Your task to perform on an android device: Go to Amazon Image 0: 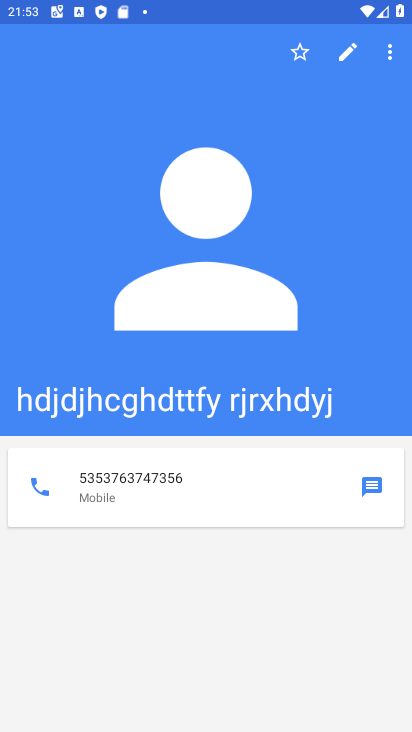
Step 0: press home button
Your task to perform on an android device: Go to Amazon Image 1: 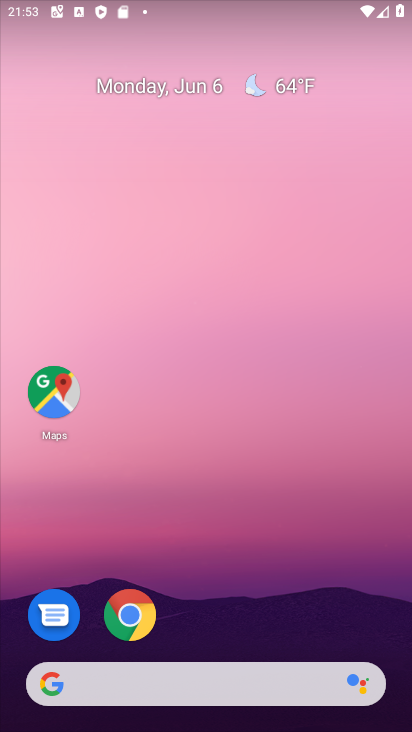
Step 1: click (137, 616)
Your task to perform on an android device: Go to Amazon Image 2: 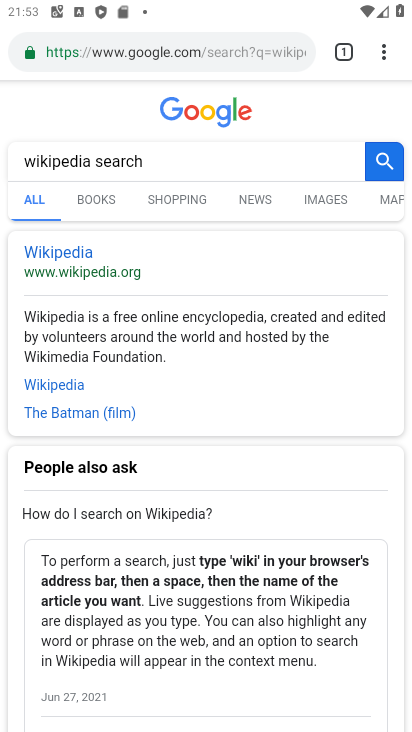
Step 2: click (308, 52)
Your task to perform on an android device: Go to Amazon Image 3: 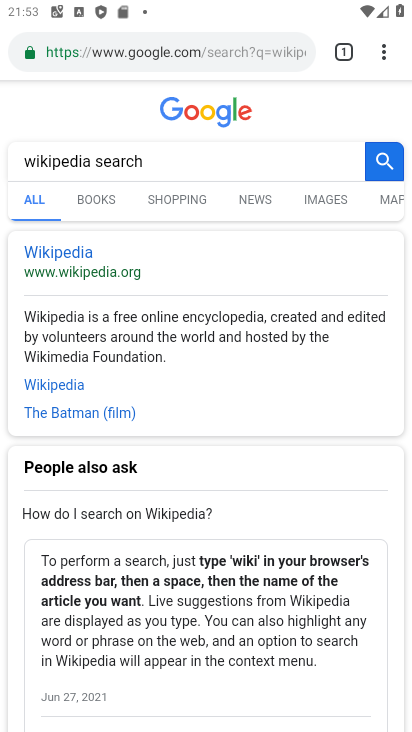
Step 3: click (298, 49)
Your task to perform on an android device: Go to Amazon Image 4: 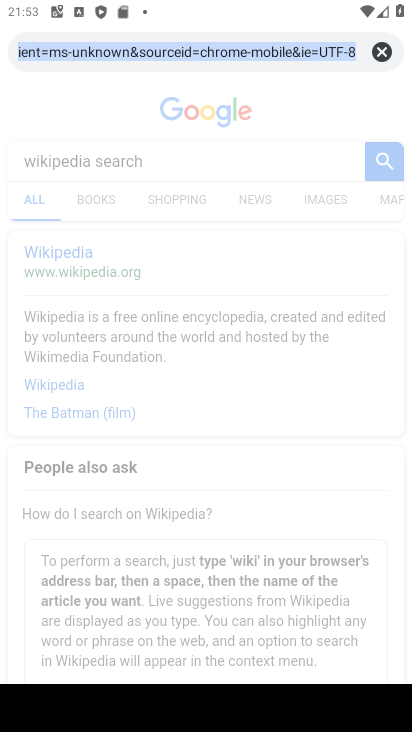
Step 4: click (374, 49)
Your task to perform on an android device: Go to Amazon Image 5: 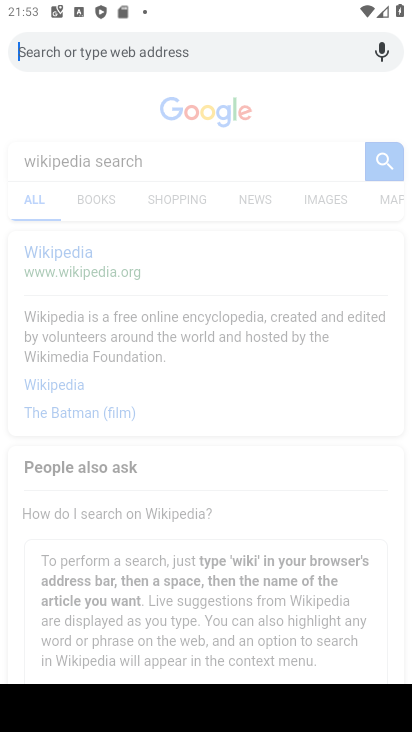
Step 5: type "Amazon"
Your task to perform on an android device: Go to Amazon Image 6: 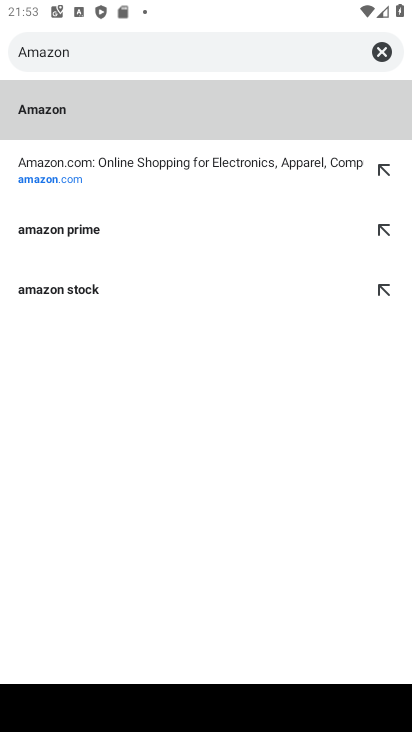
Step 6: click (37, 92)
Your task to perform on an android device: Go to Amazon Image 7: 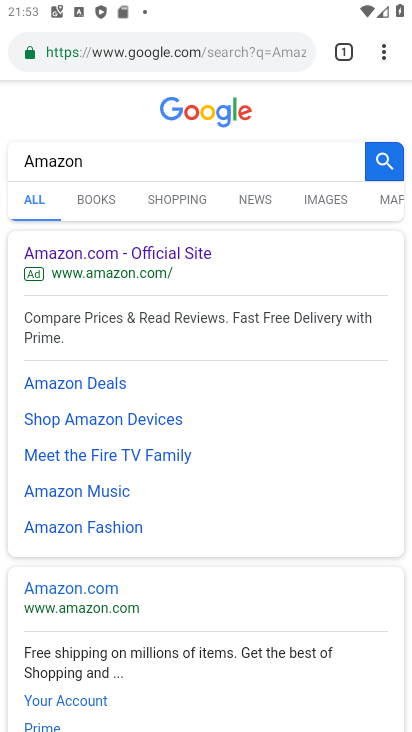
Step 7: task complete